Your task to perform on an android device: Show me productivity apps on the Play Store Image 0: 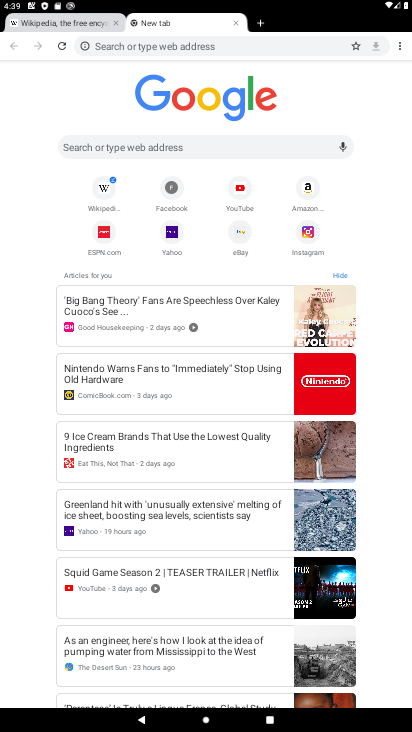
Step 0: press home button
Your task to perform on an android device: Show me productivity apps on the Play Store Image 1: 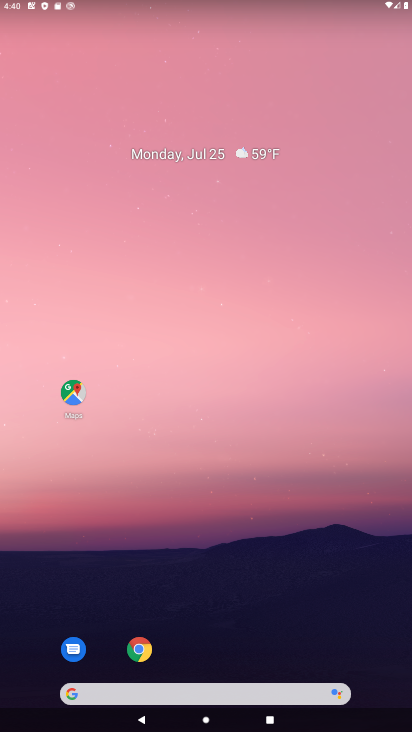
Step 1: drag from (201, 498) to (194, 0)
Your task to perform on an android device: Show me productivity apps on the Play Store Image 2: 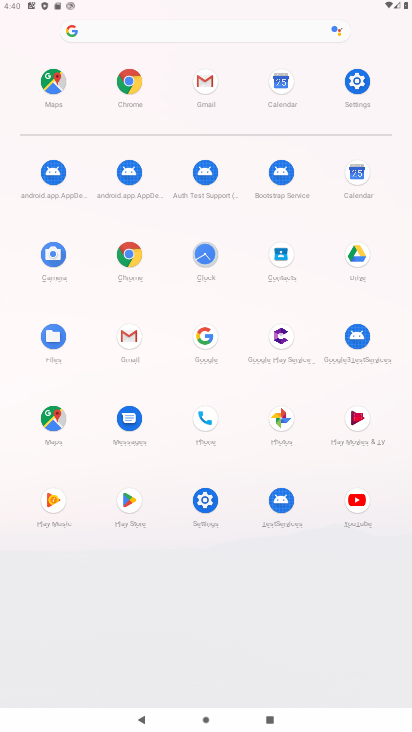
Step 2: click (127, 506)
Your task to perform on an android device: Show me productivity apps on the Play Store Image 3: 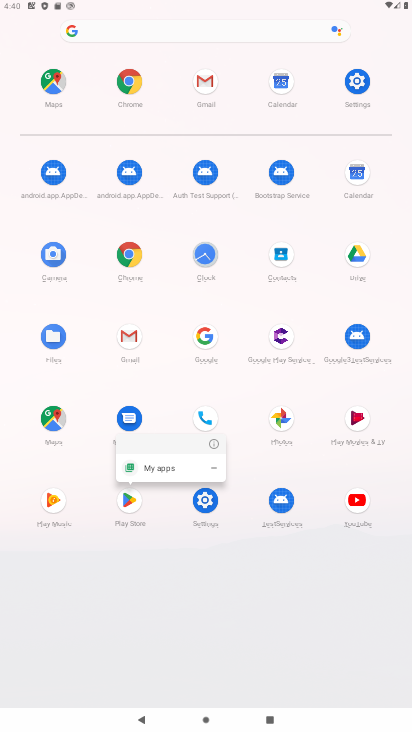
Step 3: click (128, 504)
Your task to perform on an android device: Show me productivity apps on the Play Store Image 4: 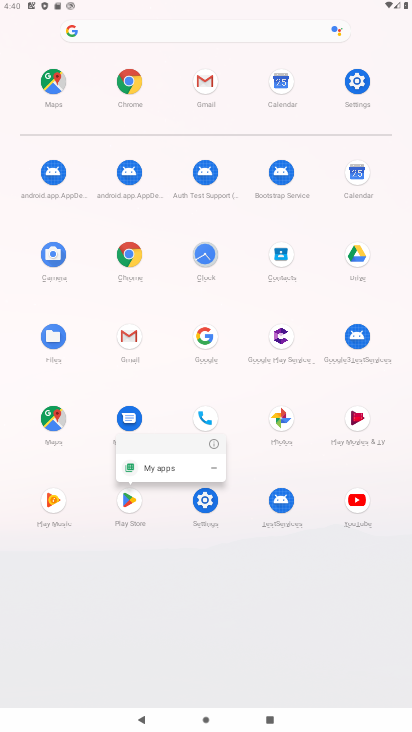
Step 4: click (126, 498)
Your task to perform on an android device: Show me productivity apps on the Play Store Image 5: 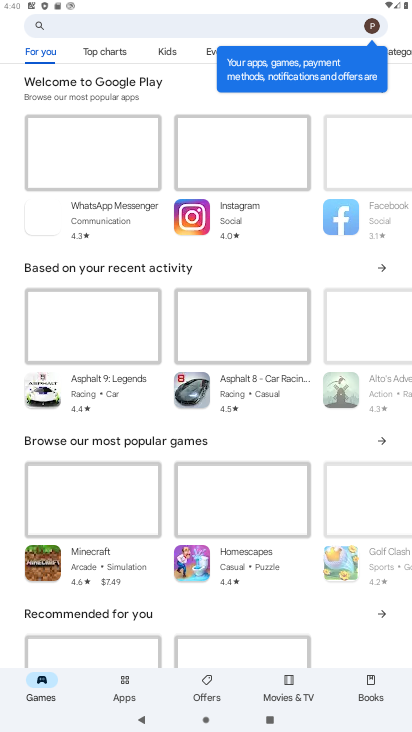
Step 5: click (179, 29)
Your task to perform on an android device: Show me productivity apps on the Play Store Image 6: 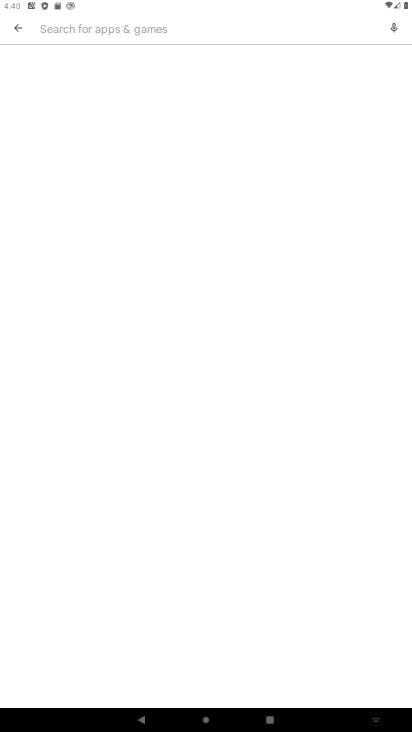
Step 6: type "productivity apps"
Your task to perform on an android device: Show me productivity apps on the Play Store Image 7: 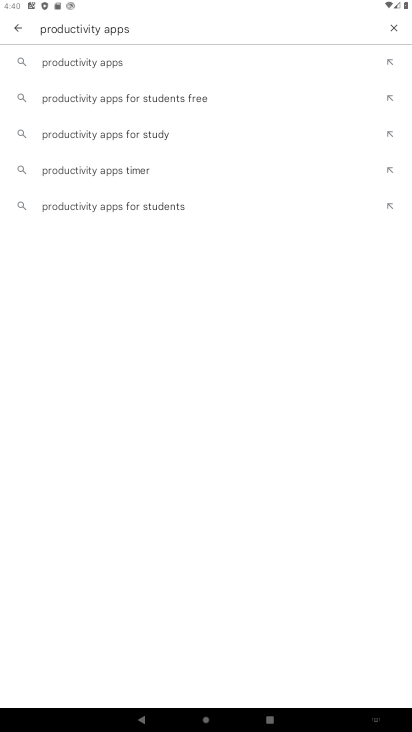
Step 7: click (69, 63)
Your task to perform on an android device: Show me productivity apps on the Play Store Image 8: 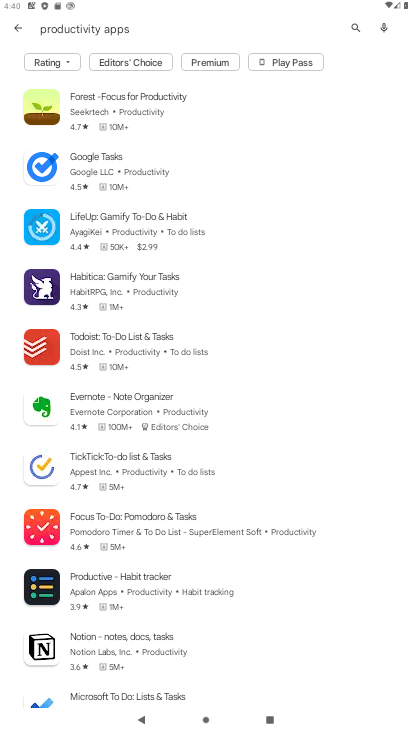
Step 8: task complete